Your task to perform on an android device: toggle priority inbox in the gmail app Image 0: 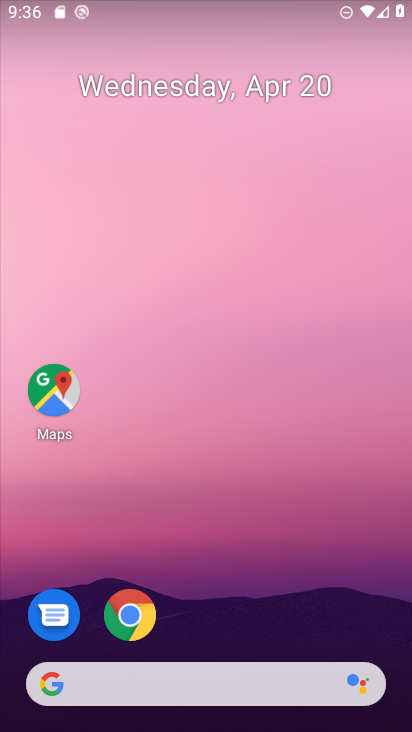
Step 0: drag from (238, 615) to (241, 73)
Your task to perform on an android device: toggle priority inbox in the gmail app Image 1: 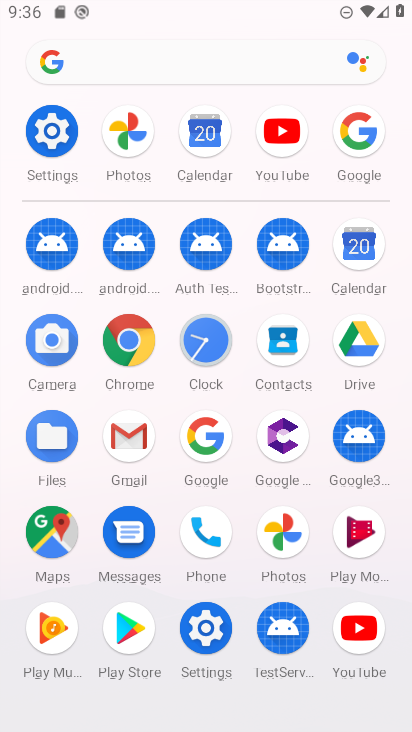
Step 1: click (129, 434)
Your task to perform on an android device: toggle priority inbox in the gmail app Image 2: 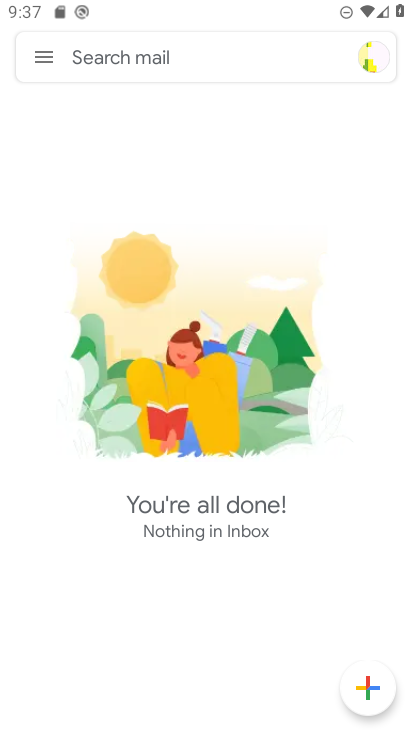
Step 2: click (40, 56)
Your task to perform on an android device: toggle priority inbox in the gmail app Image 3: 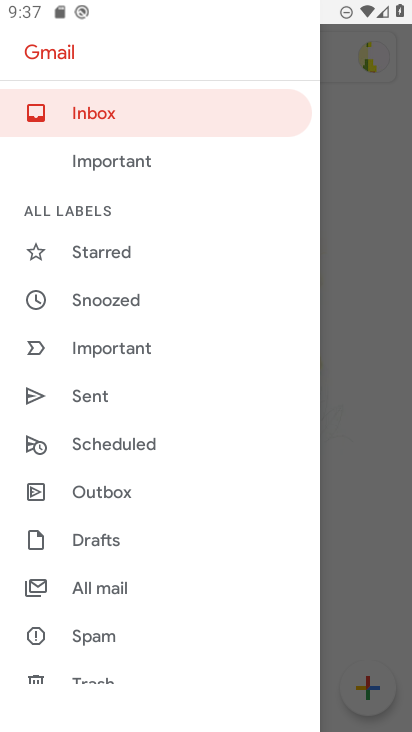
Step 3: drag from (127, 424) to (179, 337)
Your task to perform on an android device: toggle priority inbox in the gmail app Image 4: 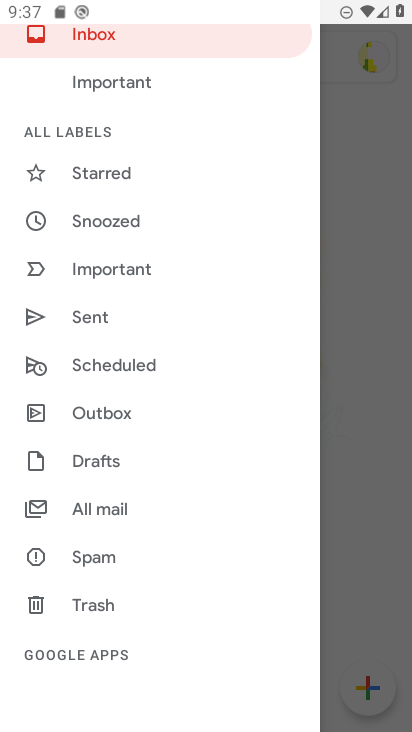
Step 4: drag from (139, 550) to (165, 480)
Your task to perform on an android device: toggle priority inbox in the gmail app Image 5: 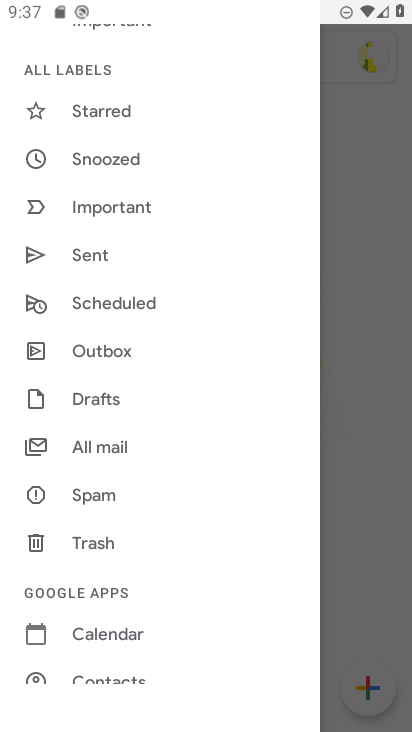
Step 5: drag from (139, 564) to (161, 482)
Your task to perform on an android device: toggle priority inbox in the gmail app Image 6: 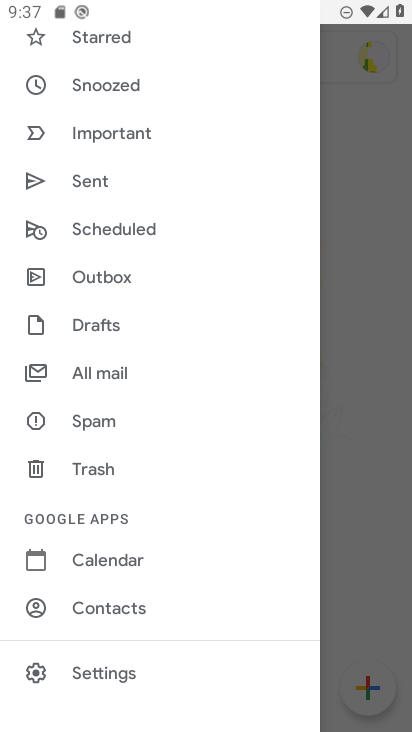
Step 6: drag from (129, 548) to (186, 478)
Your task to perform on an android device: toggle priority inbox in the gmail app Image 7: 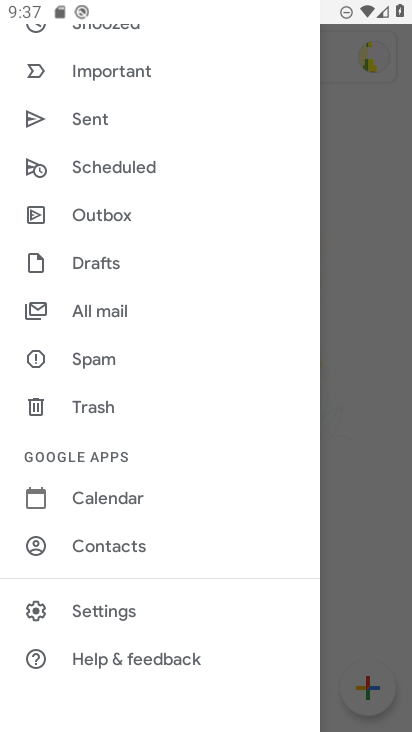
Step 7: click (111, 614)
Your task to perform on an android device: toggle priority inbox in the gmail app Image 8: 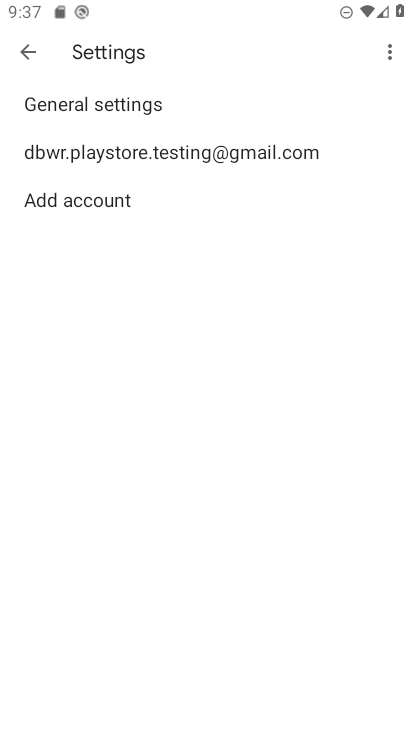
Step 8: click (233, 161)
Your task to perform on an android device: toggle priority inbox in the gmail app Image 9: 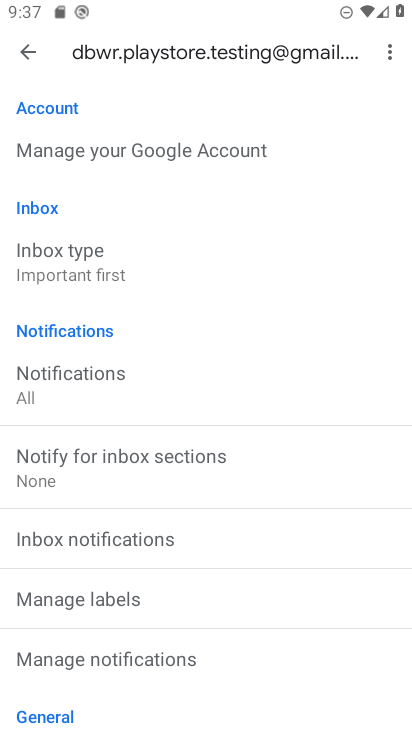
Step 9: click (100, 270)
Your task to perform on an android device: toggle priority inbox in the gmail app Image 10: 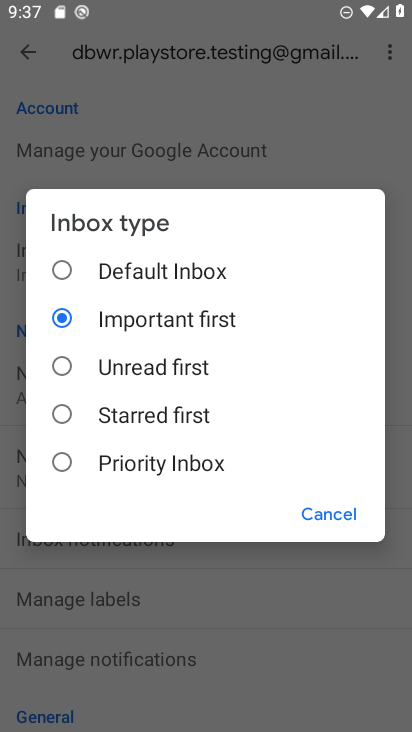
Step 10: click (62, 467)
Your task to perform on an android device: toggle priority inbox in the gmail app Image 11: 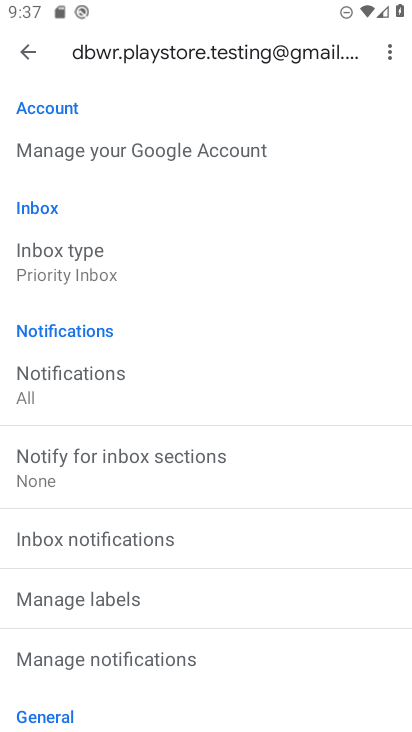
Step 11: task complete